Your task to perform on an android device: Show me recent news Image 0: 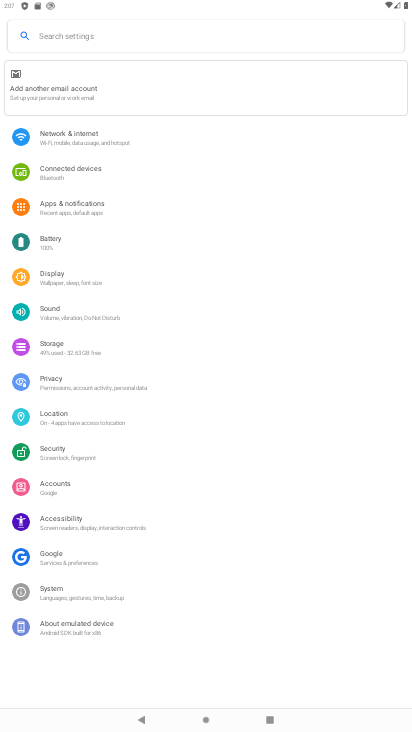
Step 0: press home button
Your task to perform on an android device: Show me recent news Image 1: 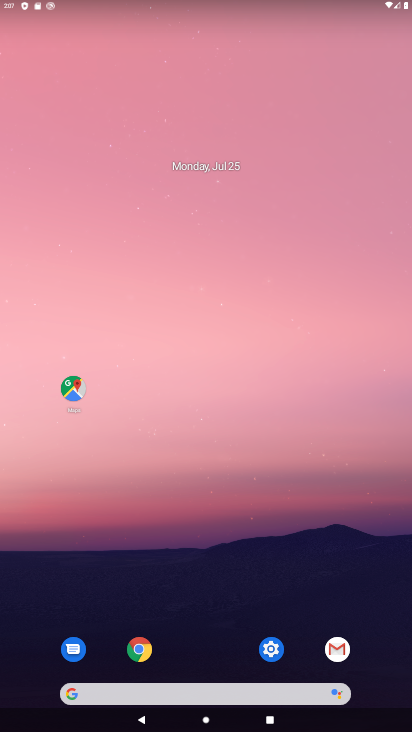
Step 1: click (179, 686)
Your task to perform on an android device: Show me recent news Image 2: 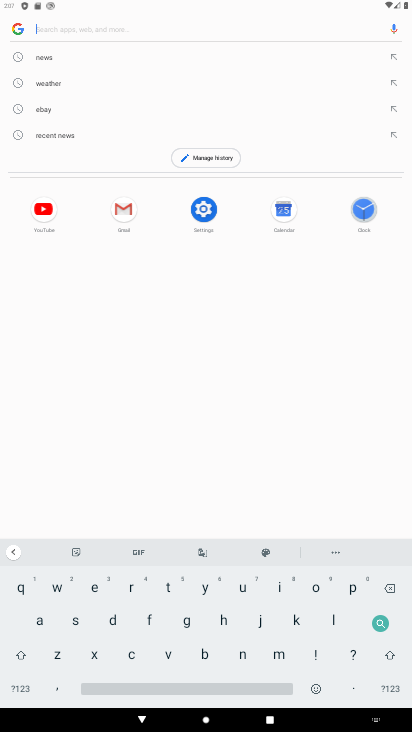
Step 2: click (131, 585)
Your task to perform on an android device: Show me recent news Image 3: 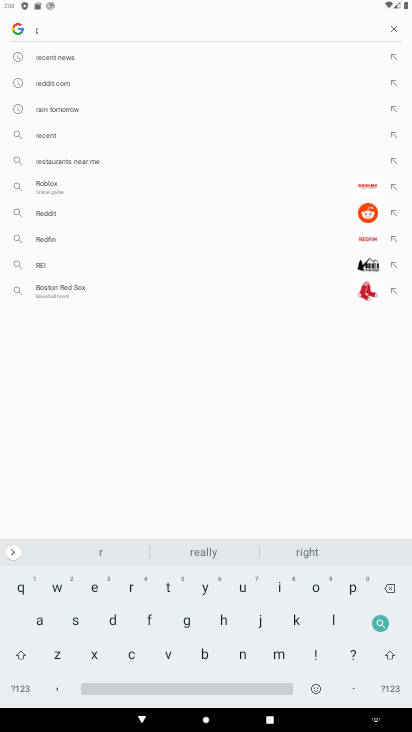
Step 3: click (93, 584)
Your task to perform on an android device: Show me recent news Image 4: 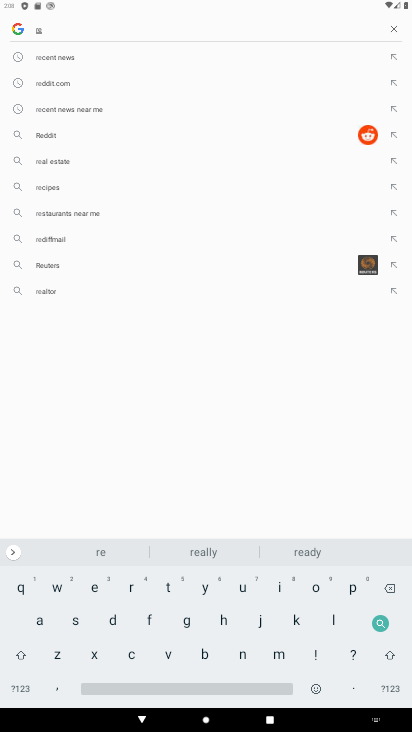
Step 4: click (79, 55)
Your task to perform on an android device: Show me recent news Image 5: 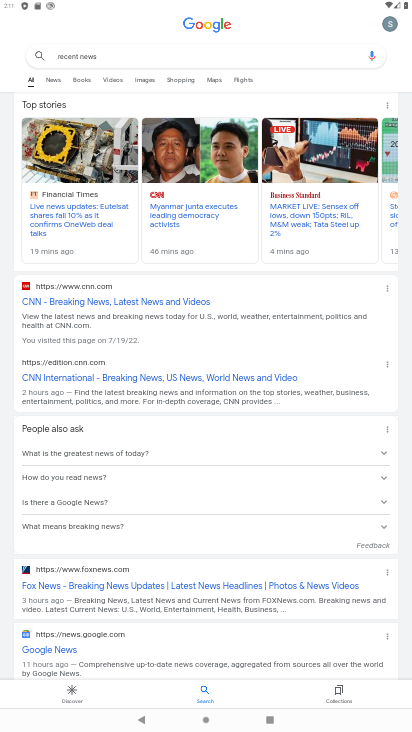
Step 5: task complete